Your task to perform on an android device: turn on bluetooth scan Image 0: 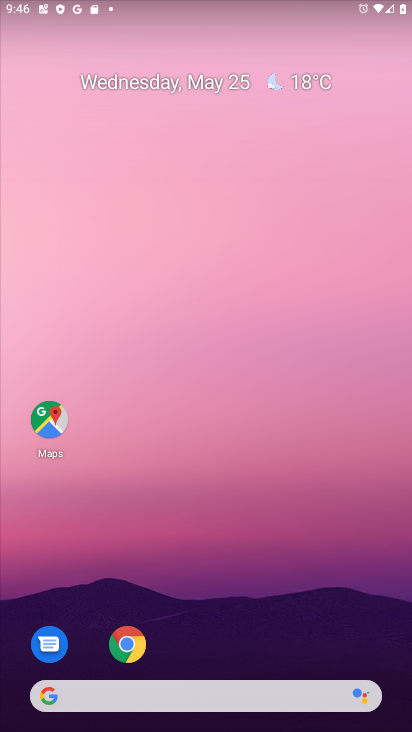
Step 0: press home button
Your task to perform on an android device: turn on bluetooth scan Image 1: 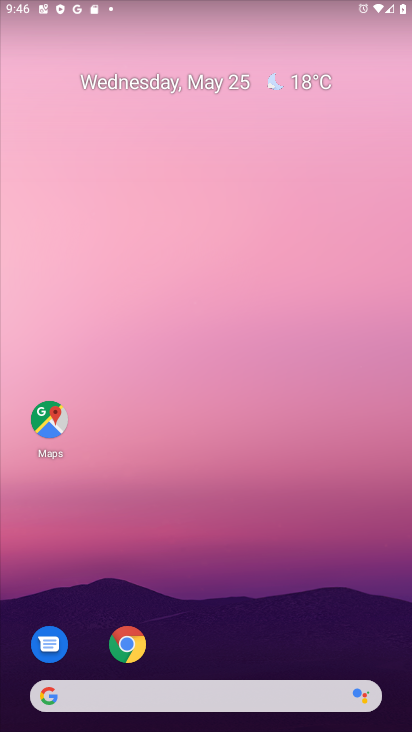
Step 1: drag from (213, 647) to (224, 223)
Your task to perform on an android device: turn on bluetooth scan Image 2: 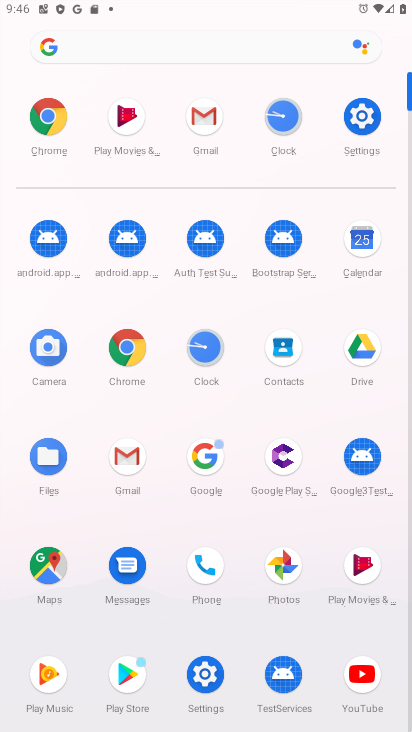
Step 2: click (360, 111)
Your task to perform on an android device: turn on bluetooth scan Image 3: 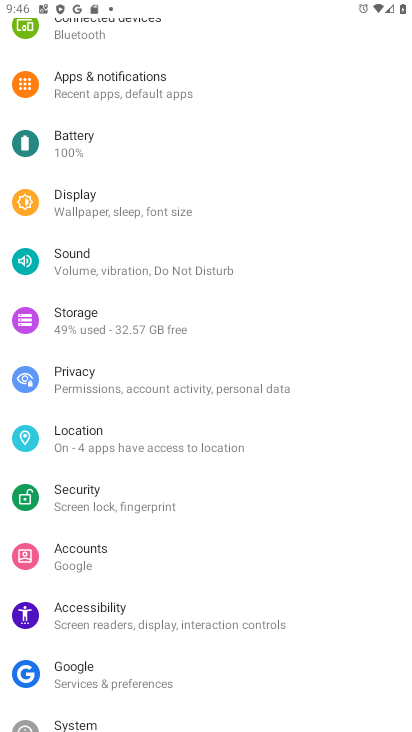
Step 3: click (104, 430)
Your task to perform on an android device: turn on bluetooth scan Image 4: 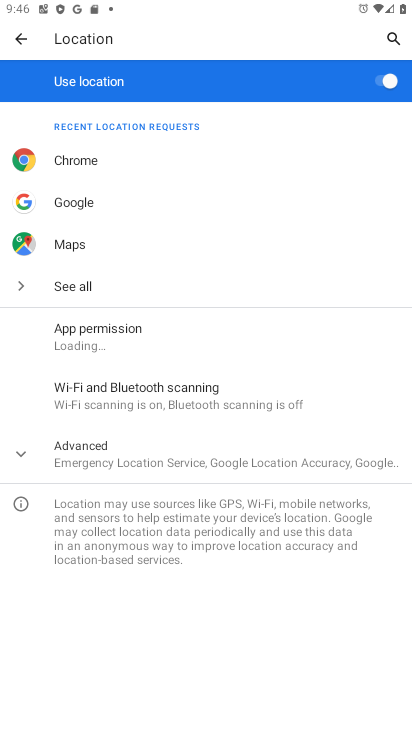
Step 4: click (211, 387)
Your task to perform on an android device: turn on bluetooth scan Image 5: 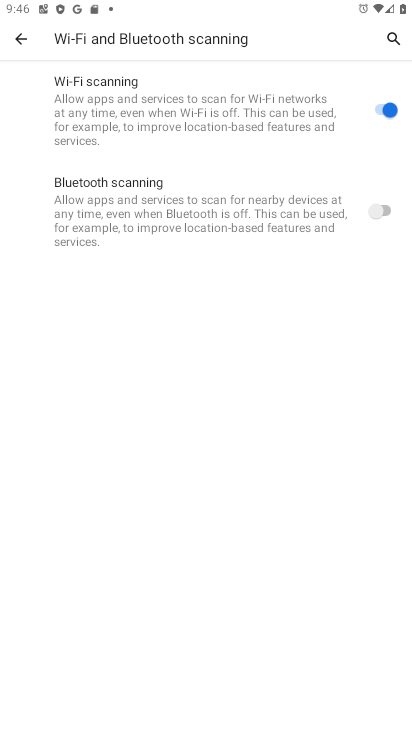
Step 5: click (391, 209)
Your task to perform on an android device: turn on bluetooth scan Image 6: 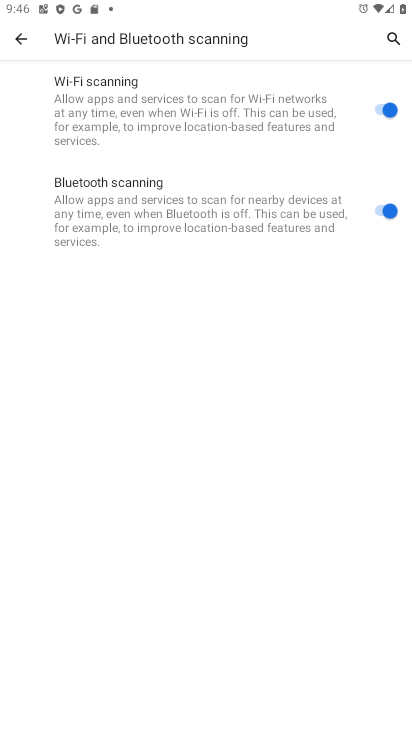
Step 6: task complete